Your task to perform on an android device: toggle notifications settings in the gmail app Image 0: 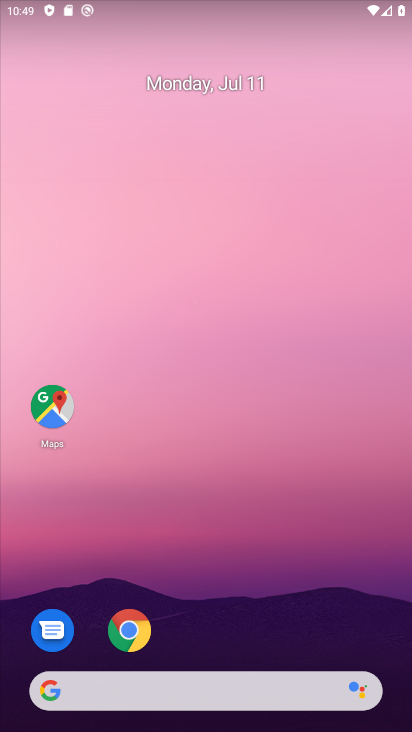
Step 0: drag from (270, 653) to (199, 203)
Your task to perform on an android device: toggle notifications settings in the gmail app Image 1: 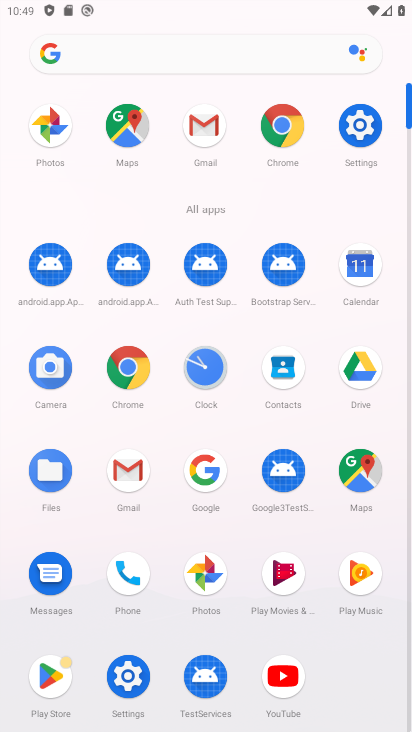
Step 1: click (205, 136)
Your task to perform on an android device: toggle notifications settings in the gmail app Image 2: 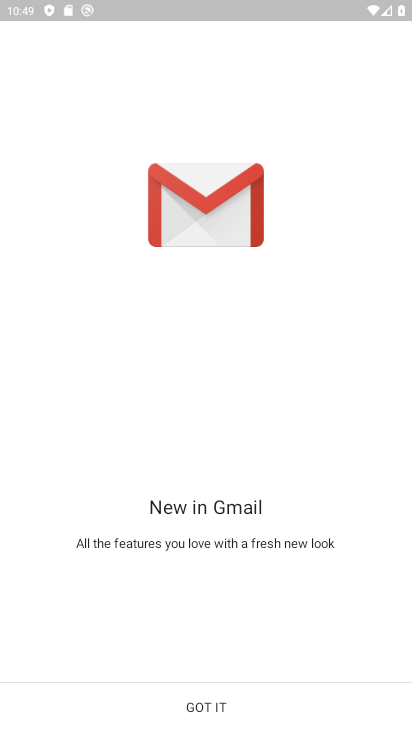
Step 2: click (214, 703)
Your task to perform on an android device: toggle notifications settings in the gmail app Image 3: 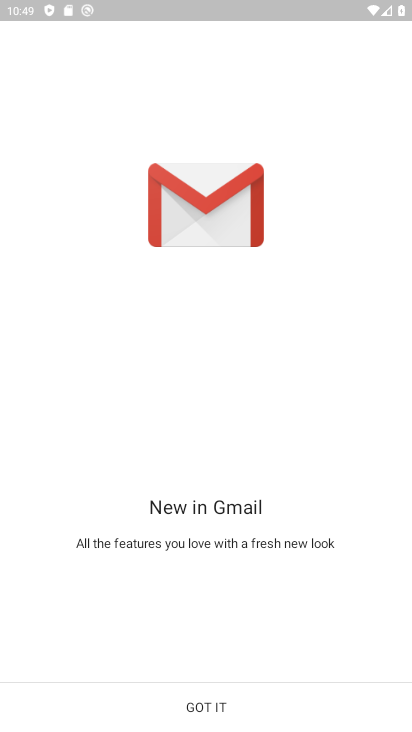
Step 3: click (215, 708)
Your task to perform on an android device: toggle notifications settings in the gmail app Image 4: 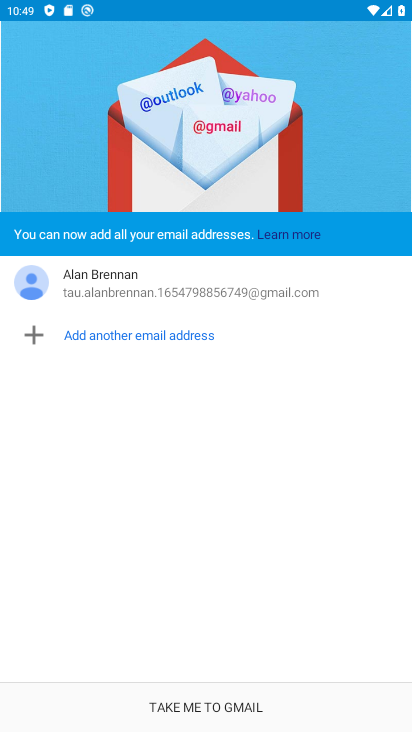
Step 4: click (215, 708)
Your task to perform on an android device: toggle notifications settings in the gmail app Image 5: 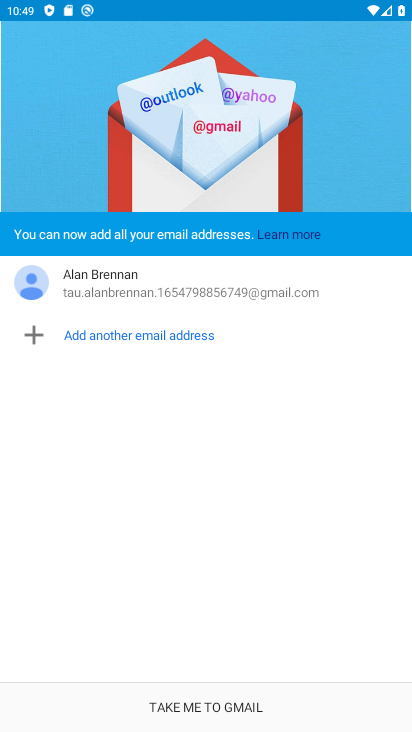
Step 5: click (239, 708)
Your task to perform on an android device: toggle notifications settings in the gmail app Image 6: 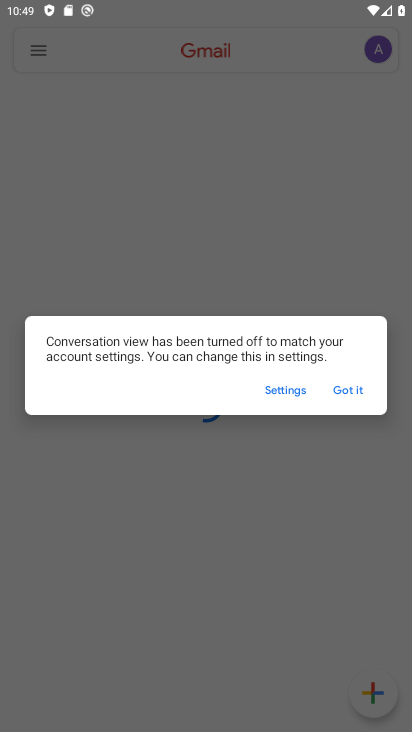
Step 6: click (353, 393)
Your task to perform on an android device: toggle notifications settings in the gmail app Image 7: 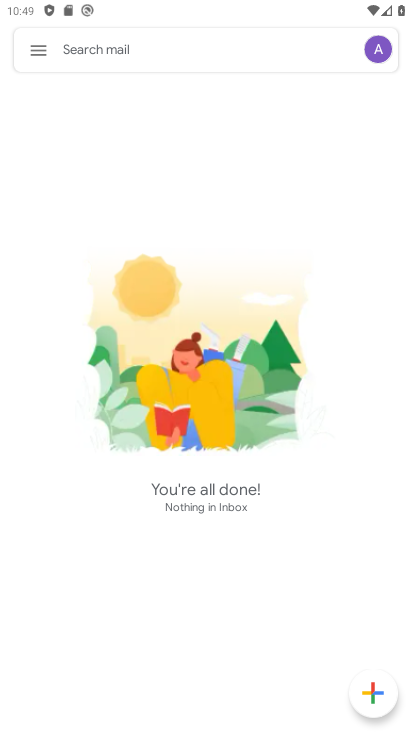
Step 7: click (36, 45)
Your task to perform on an android device: toggle notifications settings in the gmail app Image 8: 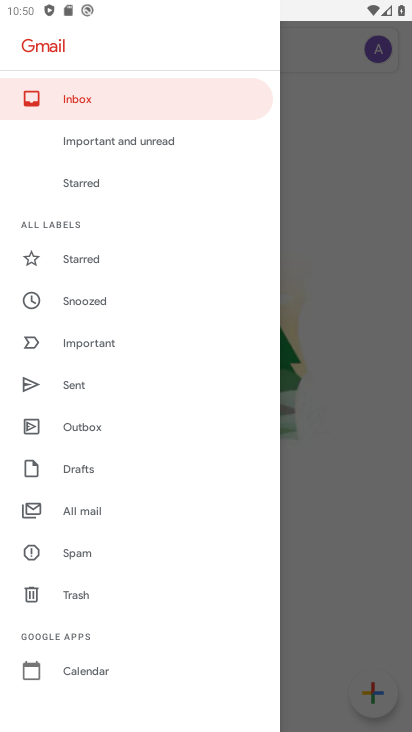
Step 8: drag from (113, 681) to (76, 385)
Your task to perform on an android device: toggle notifications settings in the gmail app Image 9: 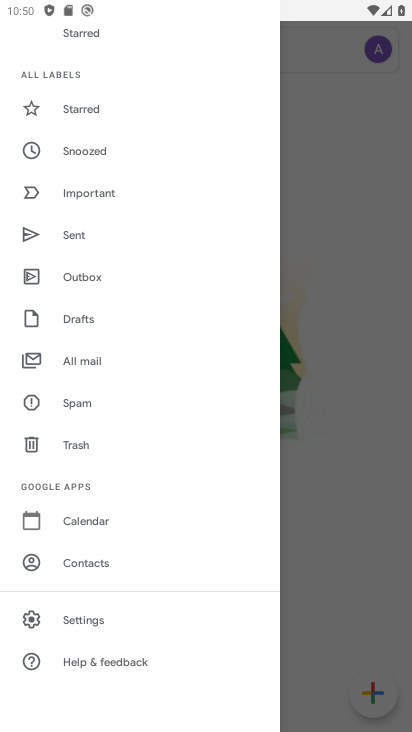
Step 9: click (102, 624)
Your task to perform on an android device: toggle notifications settings in the gmail app Image 10: 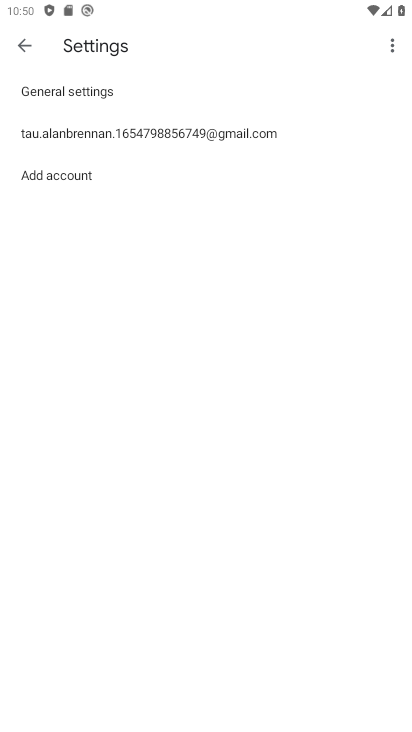
Step 10: click (187, 130)
Your task to perform on an android device: toggle notifications settings in the gmail app Image 11: 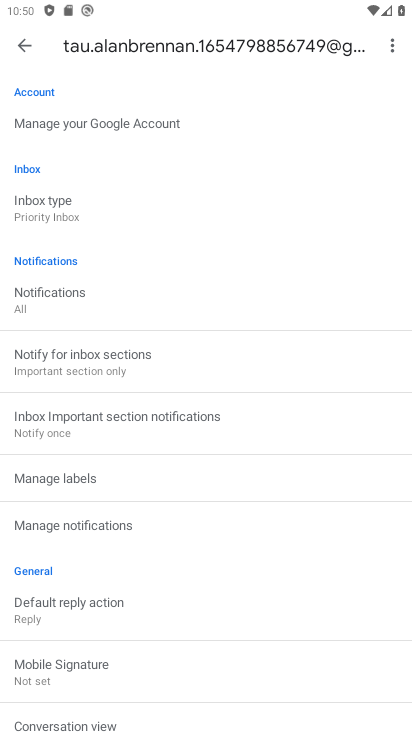
Step 11: click (119, 520)
Your task to perform on an android device: toggle notifications settings in the gmail app Image 12: 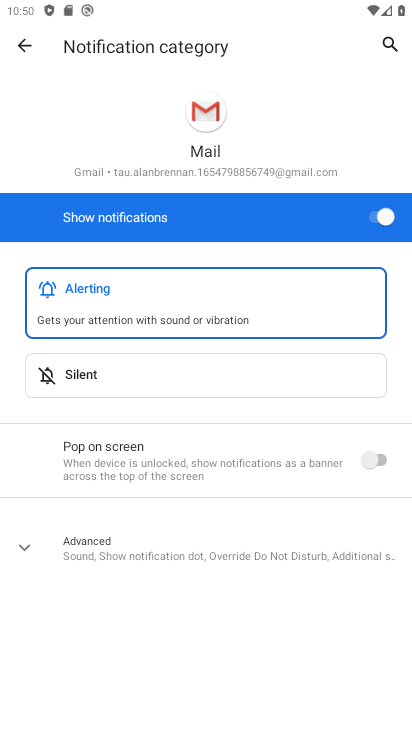
Step 12: click (371, 466)
Your task to perform on an android device: toggle notifications settings in the gmail app Image 13: 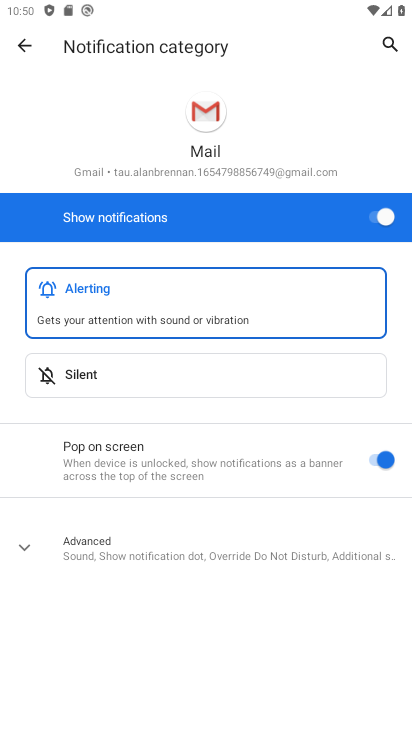
Step 13: click (283, 549)
Your task to perform on an android device: toggle notifications settings in the gmail app Image 14: 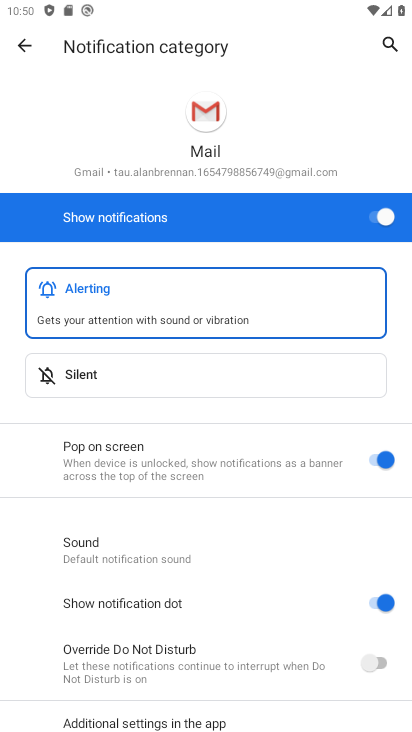
Step 14: click (374, 656)
Your task to perform on an android device: toggle notifications settings in the gmail app Image 15: 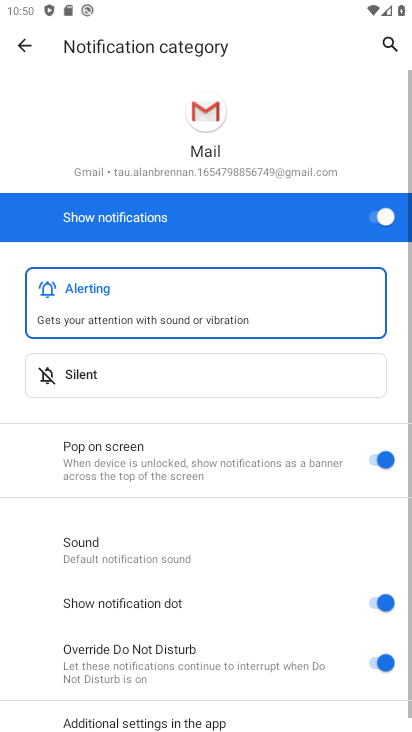
Step 15: click (374, 602)
Your task to perform on an android device: toggle notifications settings in the gmail app Image 16: 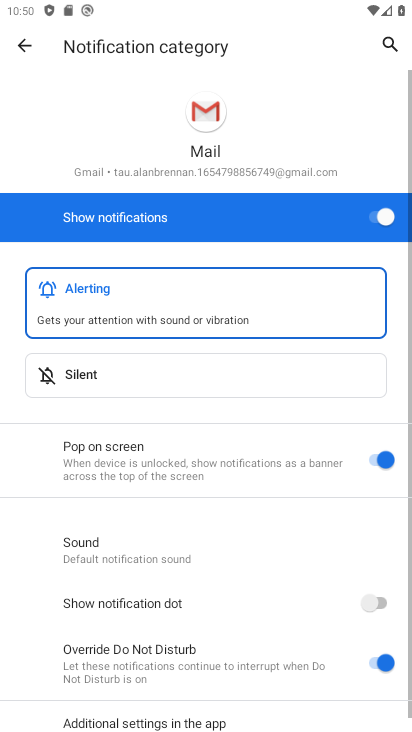
Step 16: task complete